Your task to perform on an android device: clear all cookies in the chrome app Image 0: 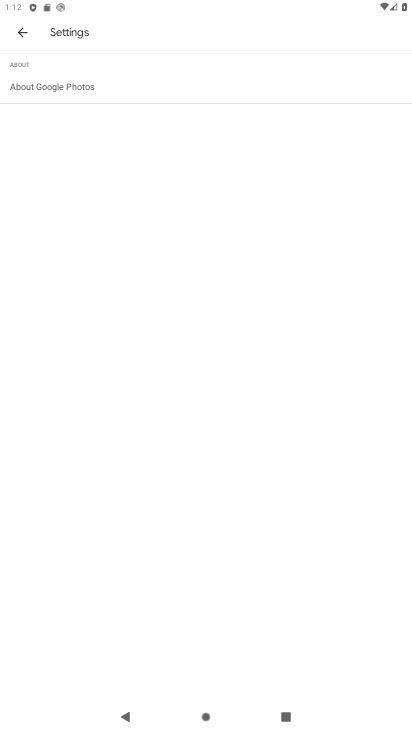
Step 0: press home button
Your task to perform on an android device: clear all cookies in the chrome app Image 1: 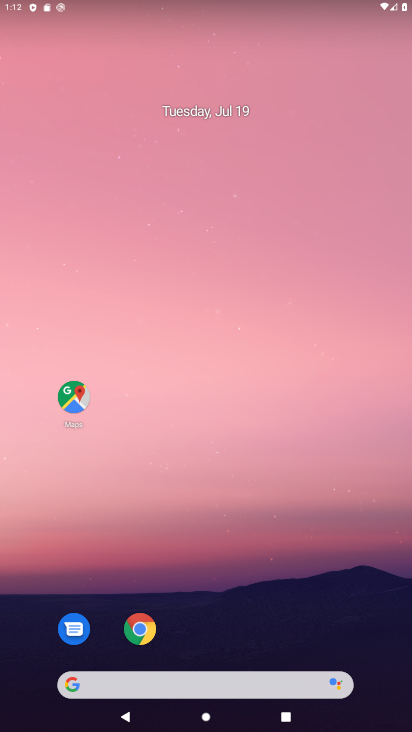
Step 1: click (140, 627)
Your task to perform on an android device: clear all cookies in the chrome app Image 2: 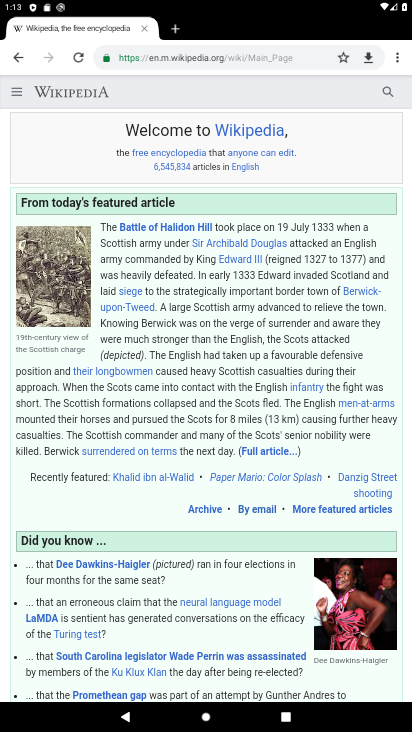
Step 2: click (399, 62)
Your task to perform on an android device: clear all cookies in the chrome app Image 3: 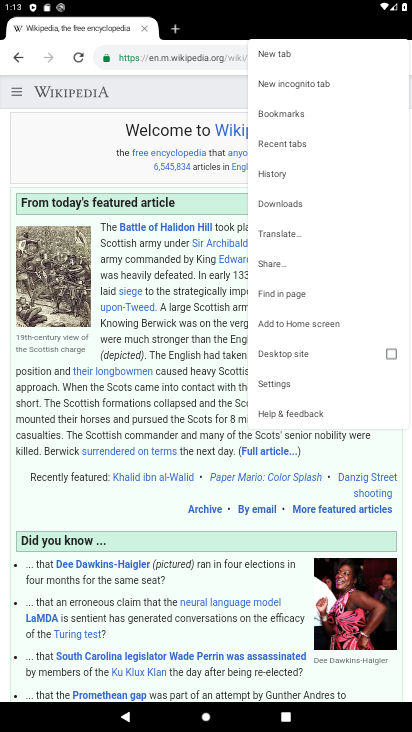
Step 3: click (281, 176)
Your task to perform on an android device: clear all cookies in the chrome app Image 4: 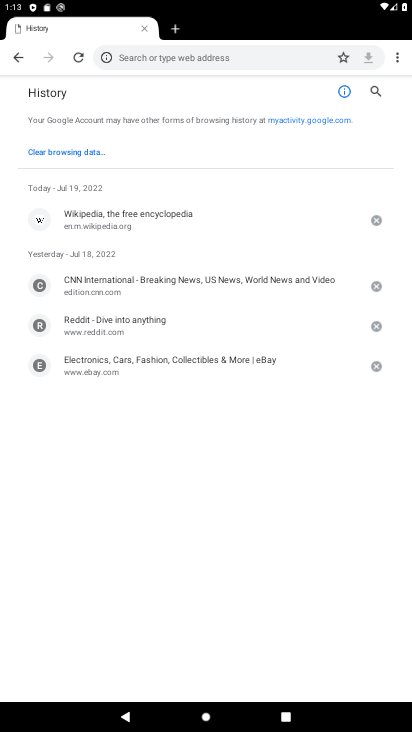
Step 4: click (93, 149)
Your task to perform on an android device: clear all cookies in the chrome app Image 5: 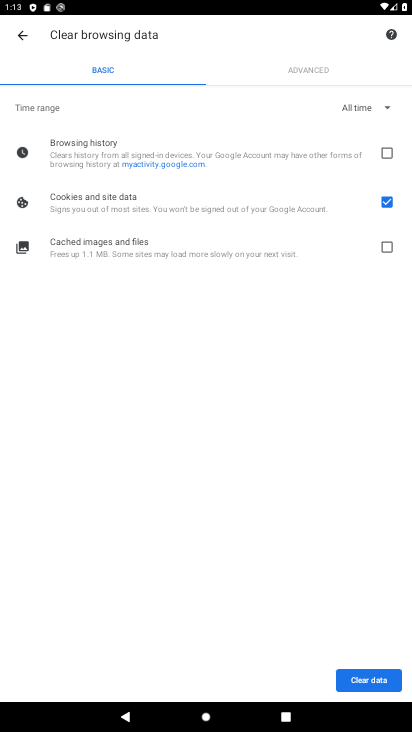
Step 5: click (380, 679)
Your task to perform on an android device: clear all cookies in the chrome app Image 6: 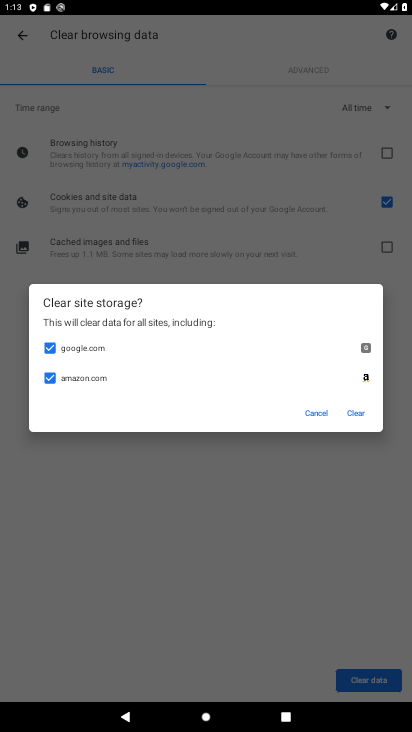
Step 6: click (357, 417)
Your task to perform on an android device: clear all cookies in the chrome app Image 7: 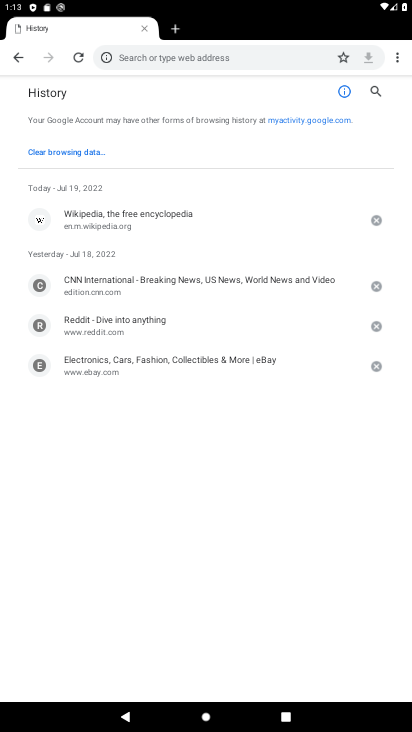
Step 7: task complete